Your task to perform on an android device: open app "eBay: The shopping marketplace" (install if not already installed), go to login, and select forgot password Image 0: 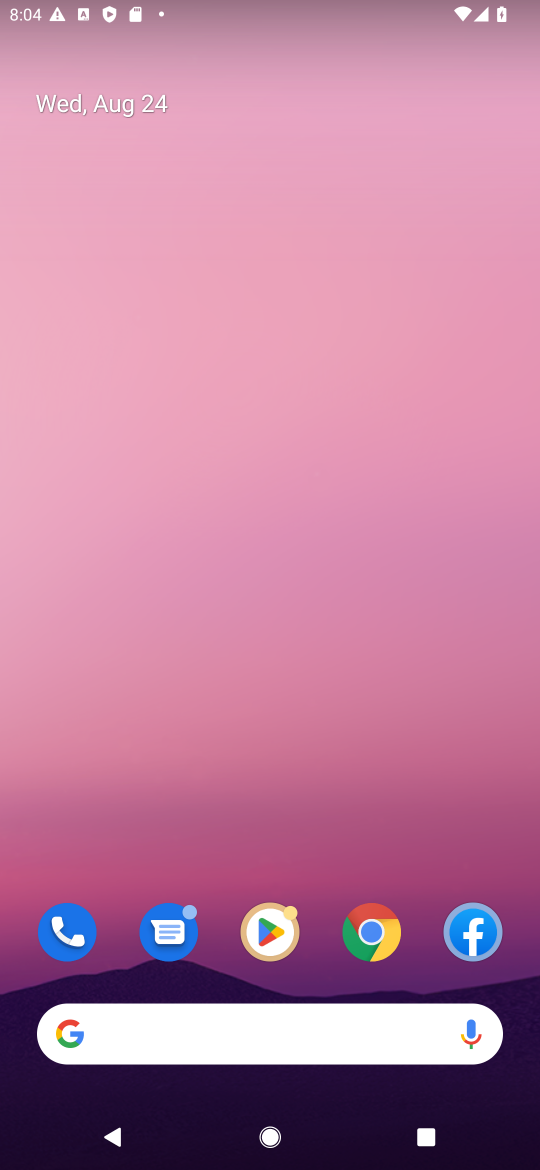
Step 0: click (292, 941)
Your task to perform on an android device: open app "eBay: The shopping marketplace" (install if not already installed), go to login, and select forgot password Image 1: 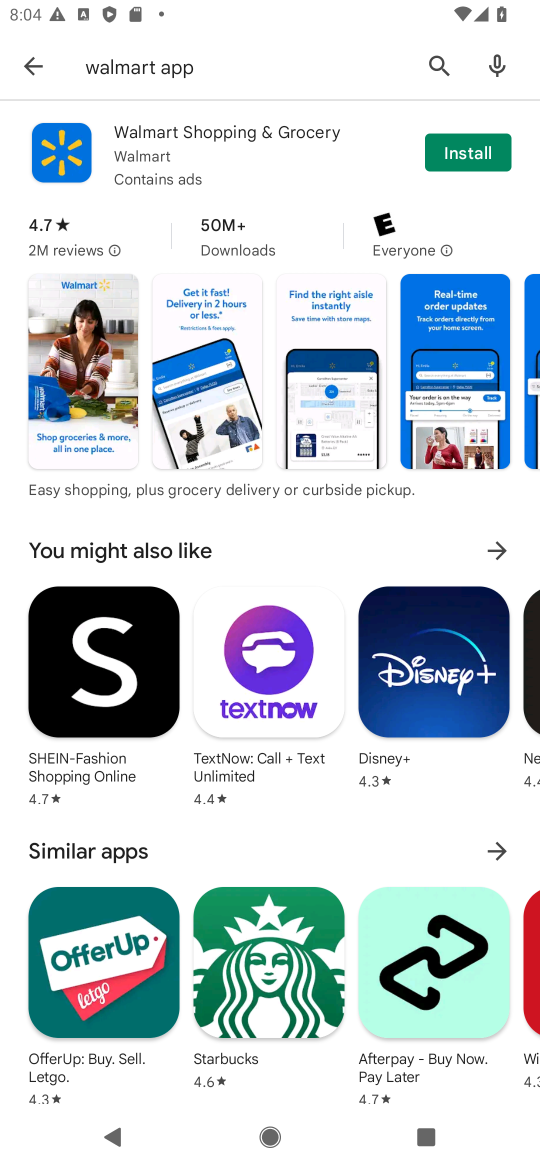
Step 1: click (208, 61)
Your task to perform on an android device: open app "eBay: The shopping marketplace" (install if not already installed), go to login, and select forgot password Image 2: 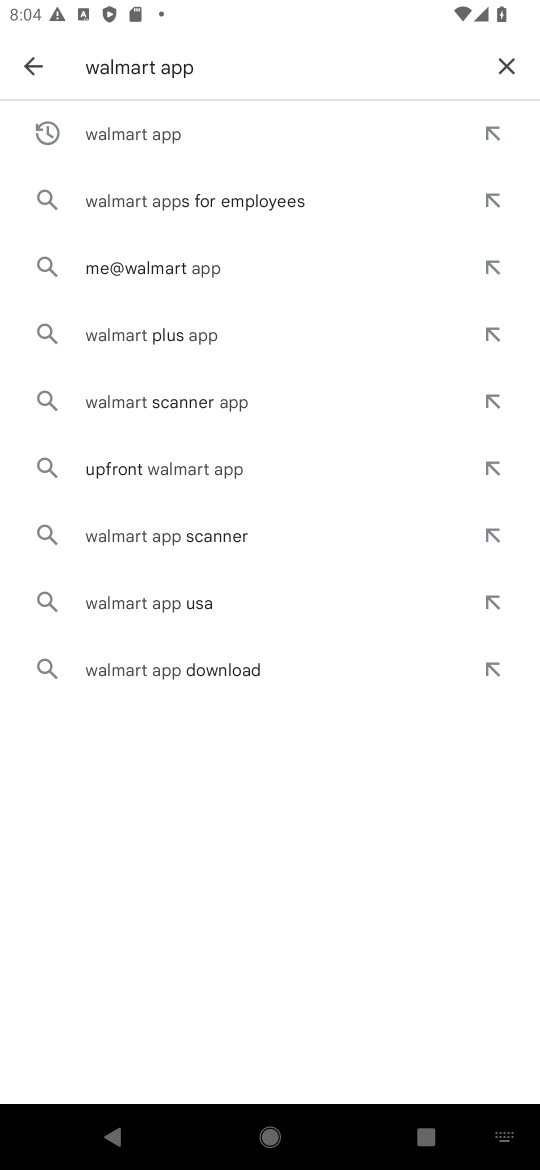
Step 2: click (512, 59)
Your task to perform on an android device: open app "eBay: The shopping marketplace" (install if not already installed), go to login, and select forgot password Image 3: 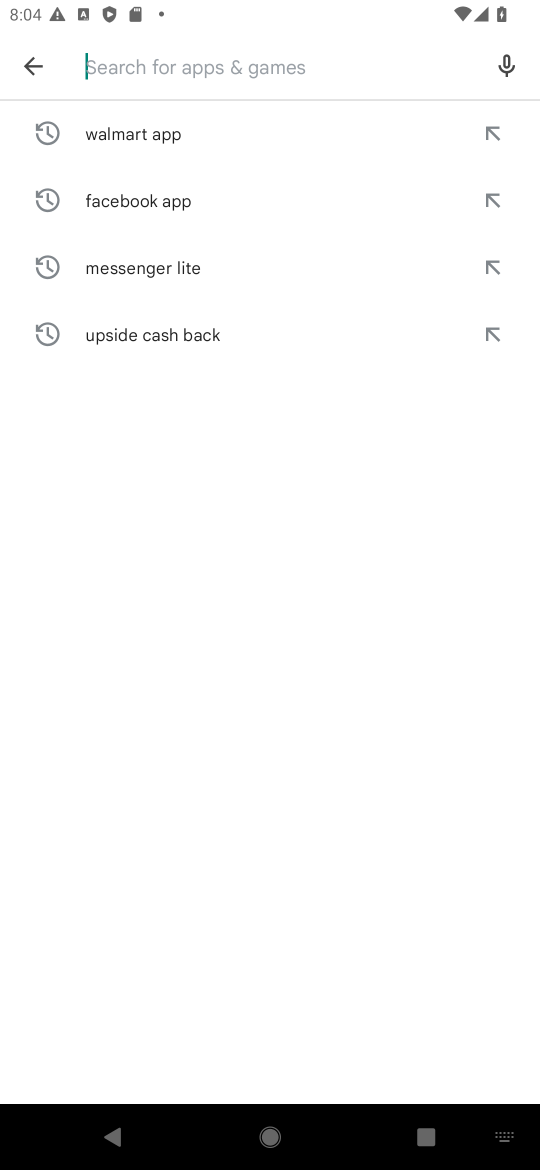
Step 3: type "eBay"
Your task to perform on an android device: open app "eBay: The shopping marketplace" (install if not already installed), go to login, and select forgot password Image 4: 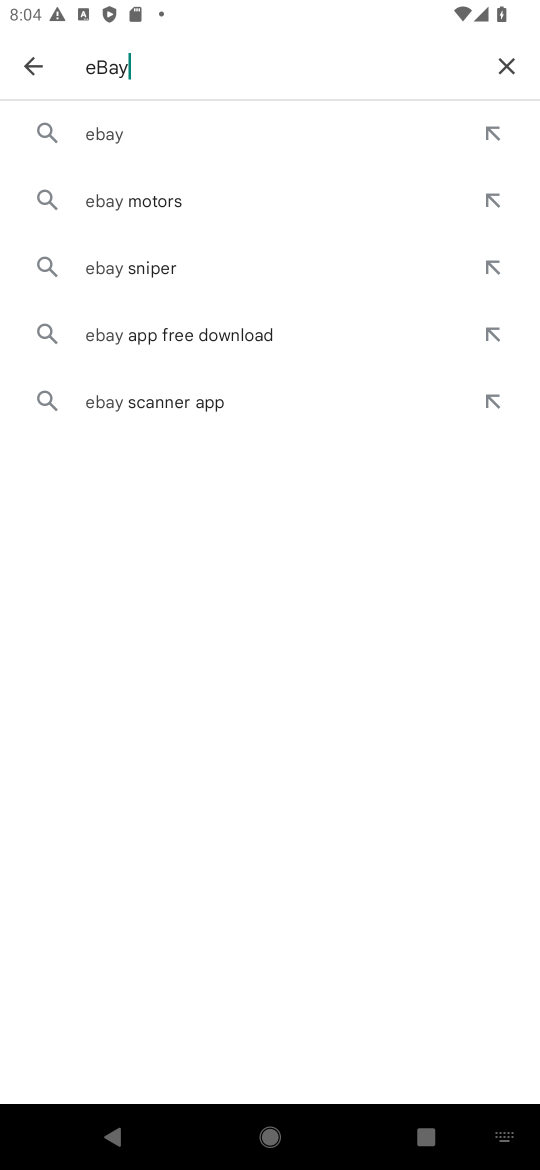
Step 4: click (134, 139)
Your task to perform on an android device: open app "eBay: The shopping marketplace" (install if not already installed), go to login, and select forgot password Image 5: 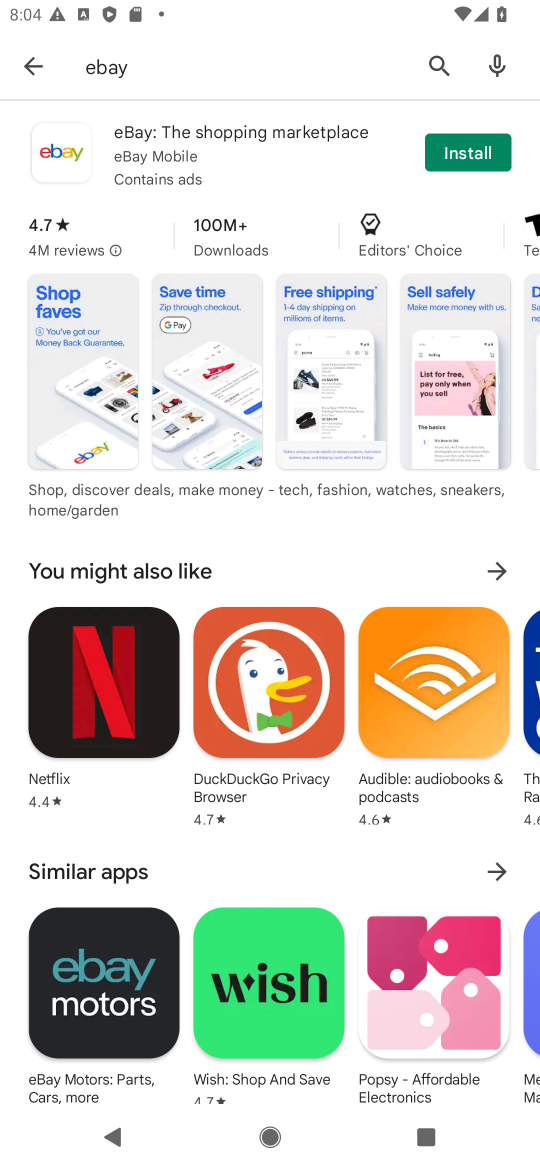
Step 5: click (461, 156)
Your task to perform on an android device: open app "eBay: The shopping marketplace" (install if not already installed), go to login, and select forgot password Image 6: 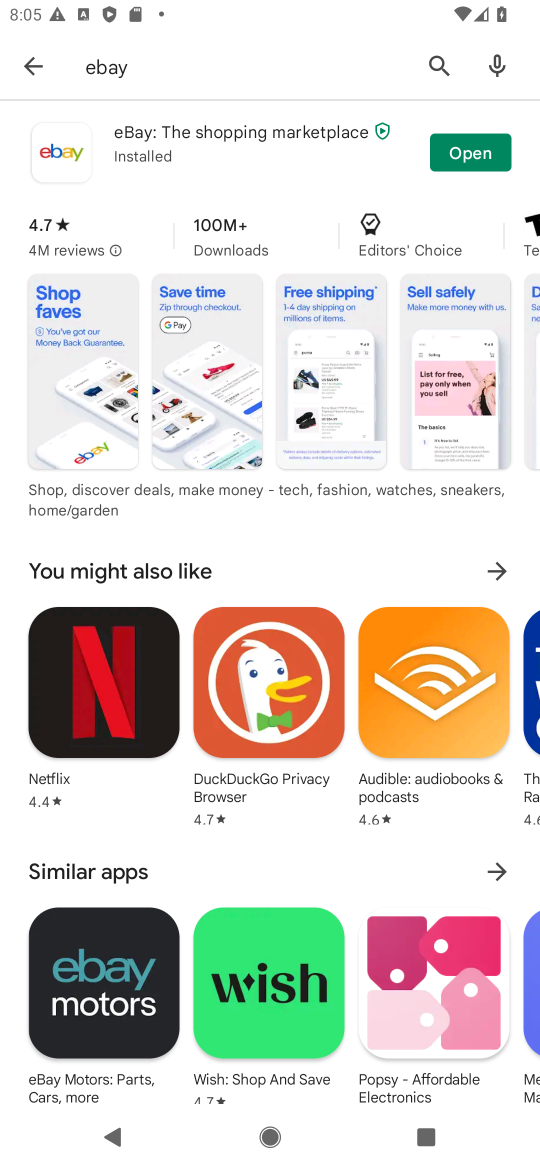
Step 6: click (462, 142)
Your task to perform on an android device: open app "eBay: The shopping marketplace" (install if not already installed), go to login, and select forgot password Image 7: 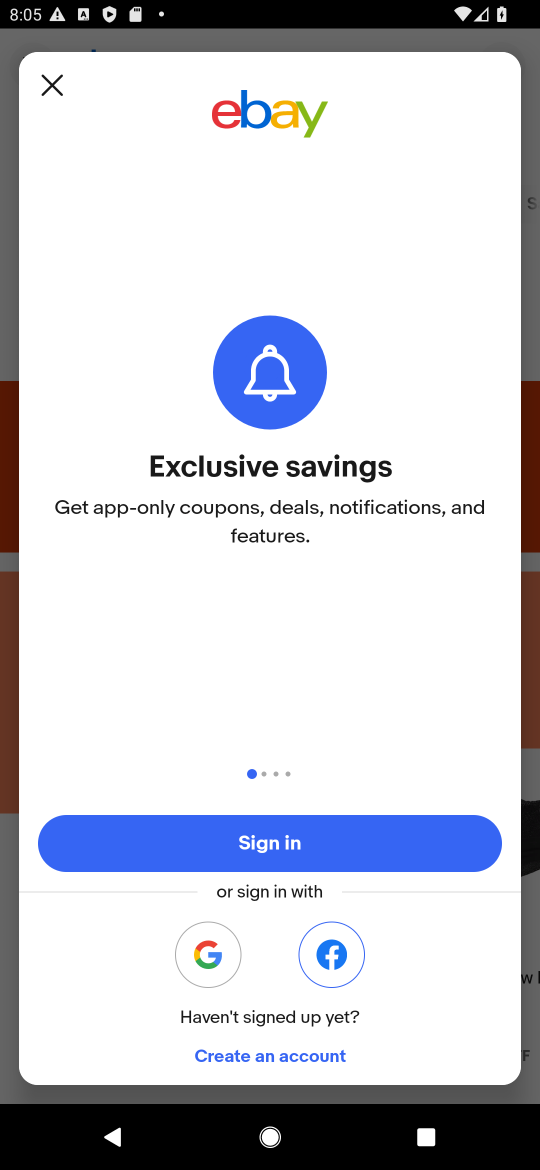
Step 7: click (297, 849)
Your task to perform on an android device: open app "eBay: The shopping marketplace" (install if not already installed), go to login, and select forgot password Image 8: 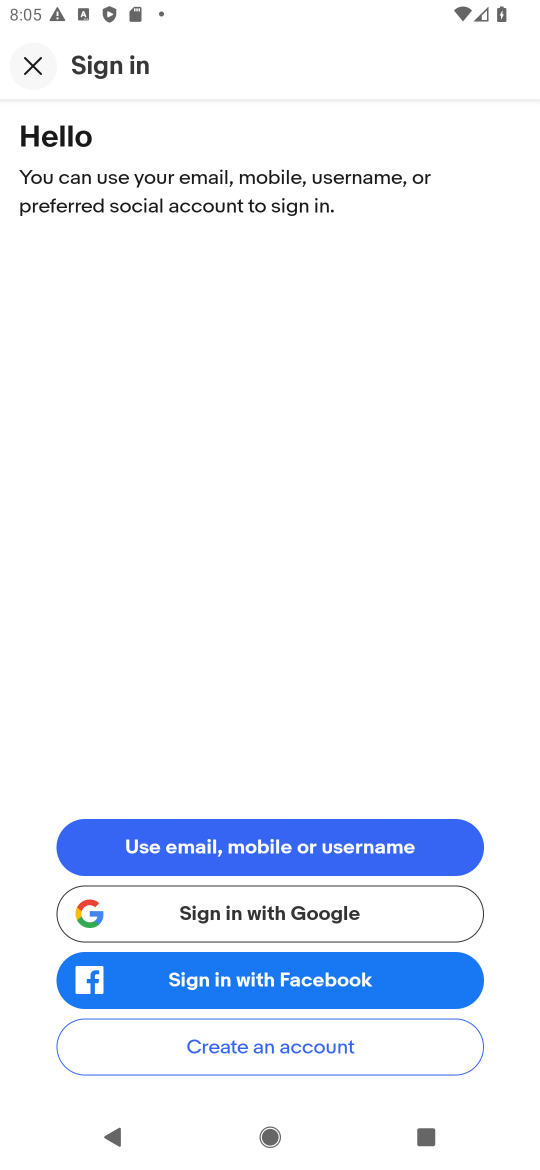
Step 8: click (331, 841)
Your task to perform on an android device: open app "eBay: The shopping marketplace" (install if not already installed), go to login, and select forgot password Image 9: 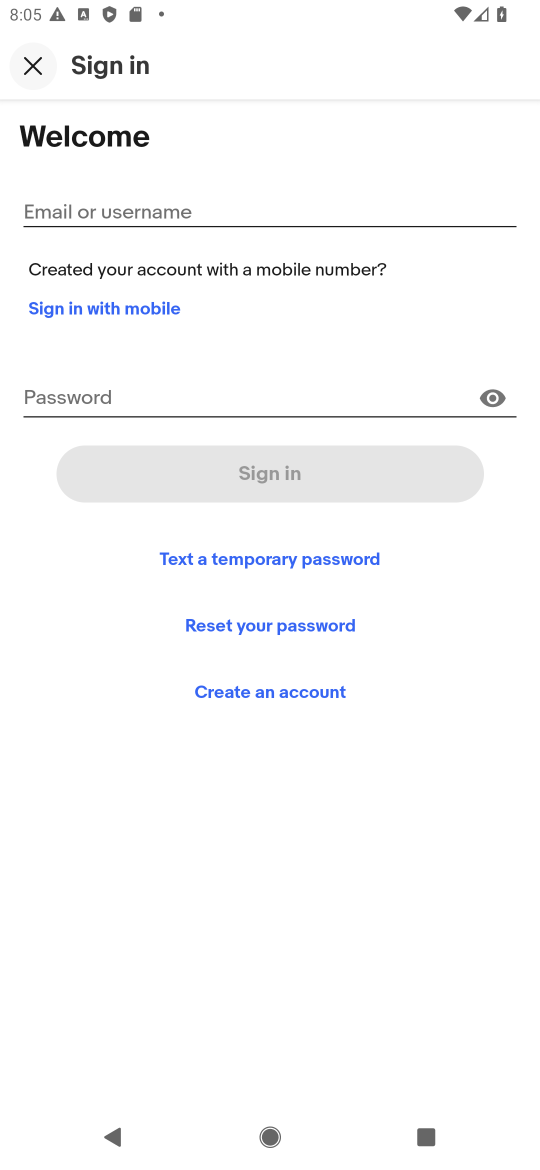
Step 9: click (309, 618)
Your task to perform on an android device: open app "eBay: The shopping marketplace" (install if not already installed), go to login, and select forgot password Image 10: 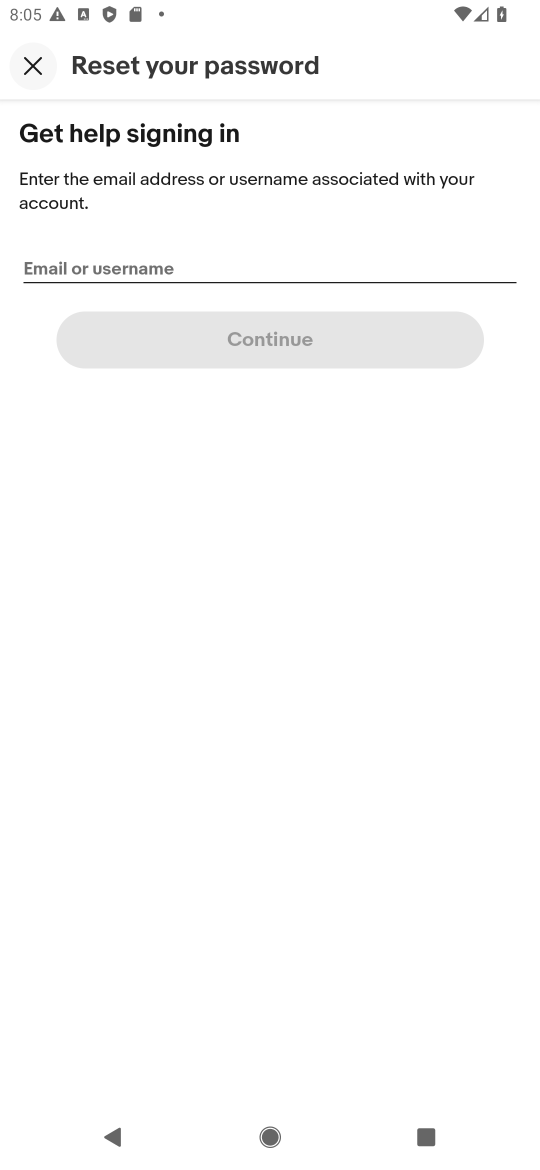
Step 10: task complete